Your task to perform on an android device: Open Chrome and go to the settings page Image 0: 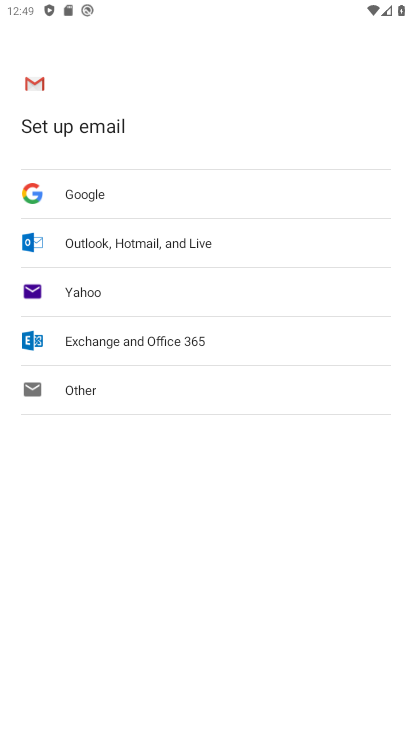
Step 0: press home button
Your task to perform on an android device: Open Chrome and go to the settings page Image 1: 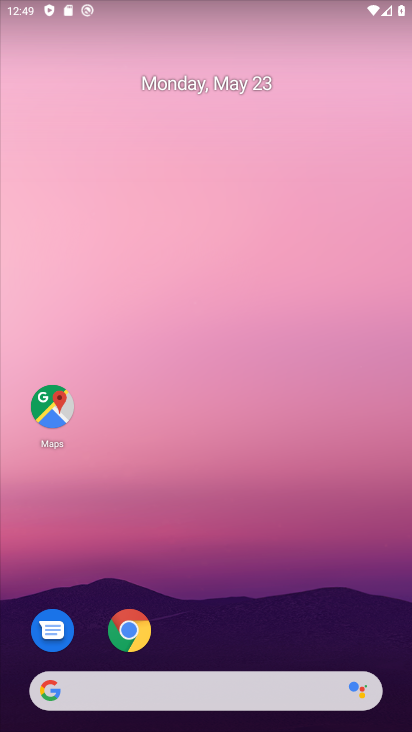
Step 1: drag from (350, 536) to (313, 126)
Your task to perform on an android device: Open Chrome and go to the settings page Image 2: 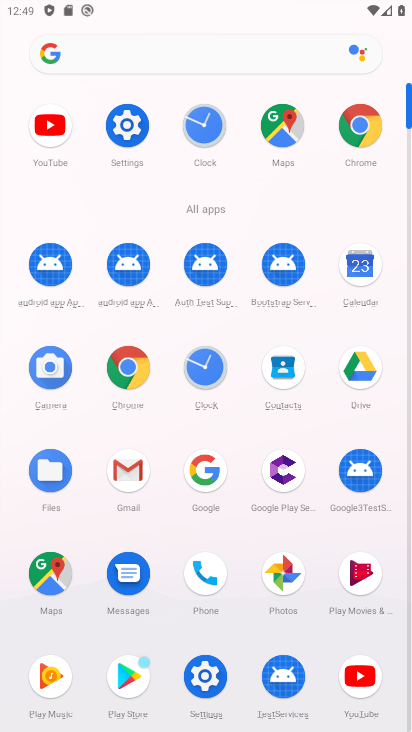
Step 2: click (209, 675)
Your task to perform on an android device: Open Chrome and go to the settings page Image 3: 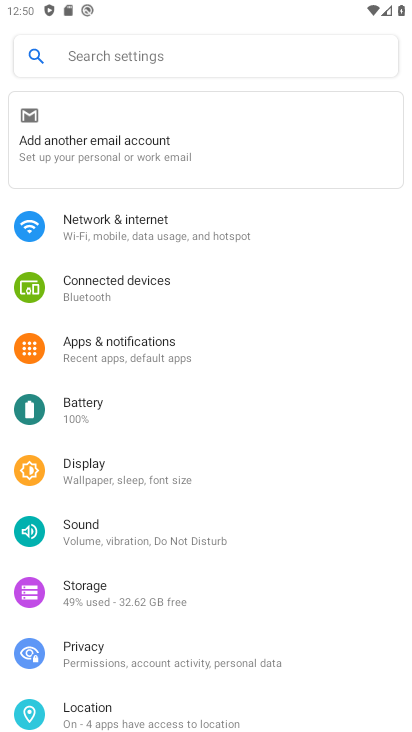
Step 3: task complete